Your task to perform on an android device: Search for Italian restaurants on Maps Image 0: 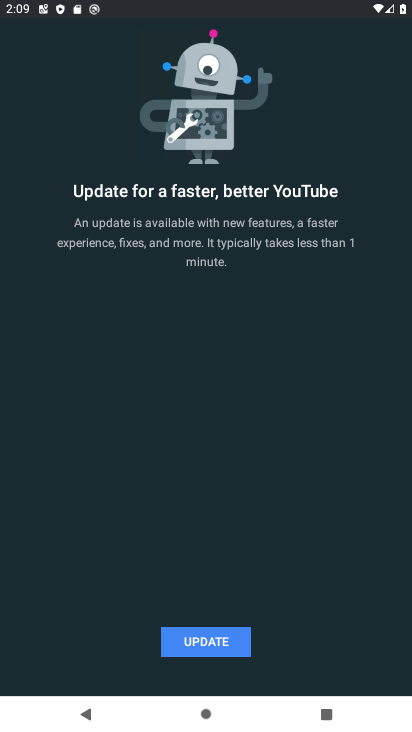
Step 0: press back button
Your task to perform on an android device: Search for Italian restaurants on Maps Image 1: 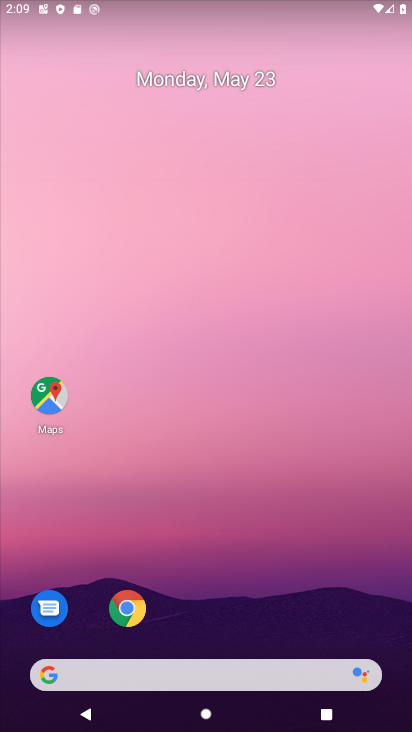
Step 1: drag from (157, 639) to (96, 124)
Your task to perform on an android device: Search for Italian restaurants on Maps Image 2: 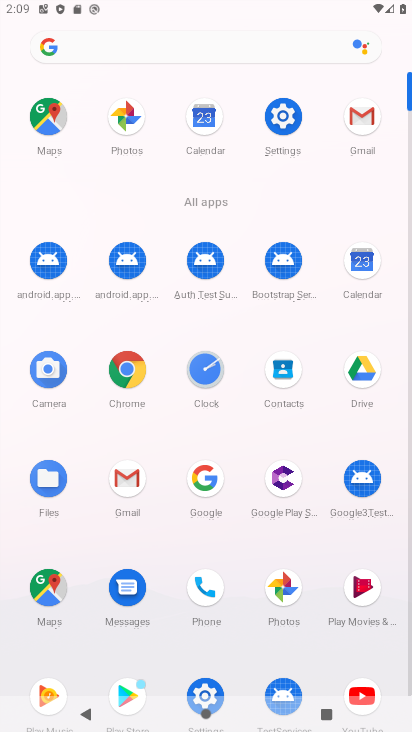
Step 2: click (55, 611)
Your task to perform on an android device: Search for Italian restaurants on Maps Image 3: 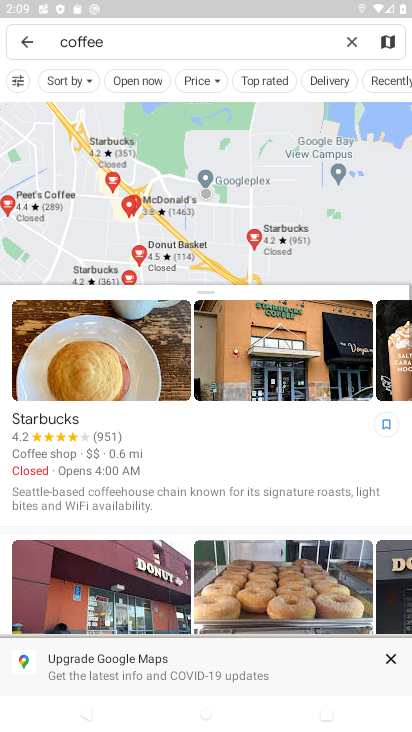
Step 3: click (345, 48)
Your task to perform on an android device: Search for Italian restaurants on Maps Image 4: 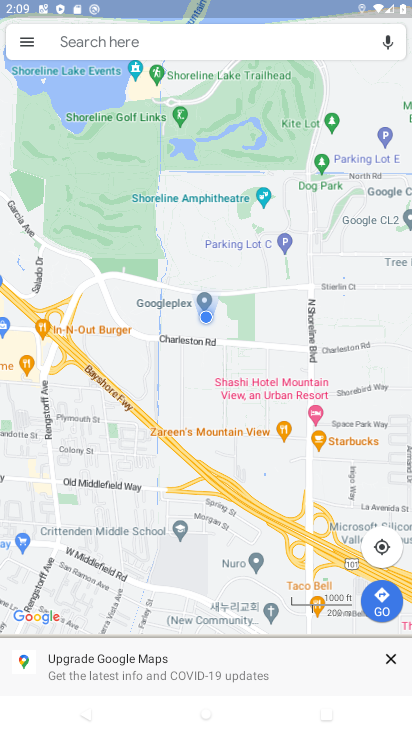
Step 4: click (122, 47)
Your task to perform on an android device: Search for Italian restaurants on Maps Image 5: 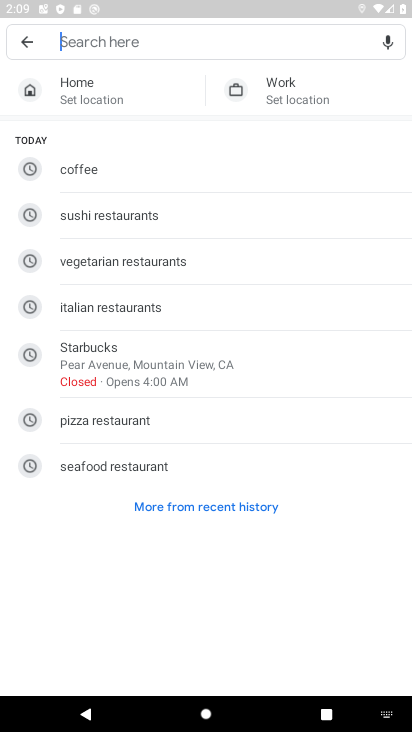
Step 5: click (138, 303)
Your task to perform on an android device: Search for Italian restaurants on Maps Image 6: 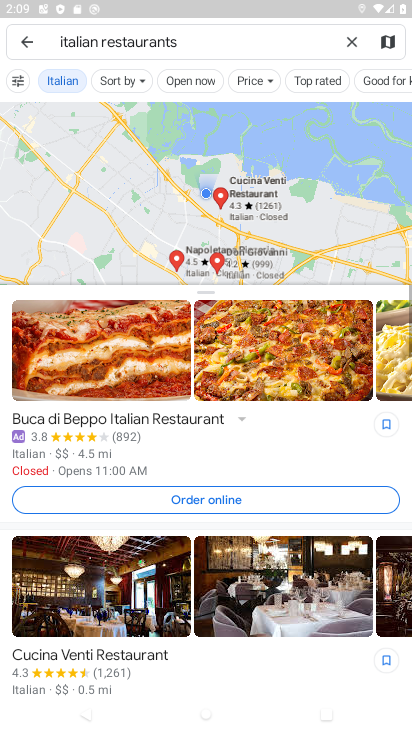
Step 6: task complete